Your task to perform on an android device: Open Wikipedia Image 0: 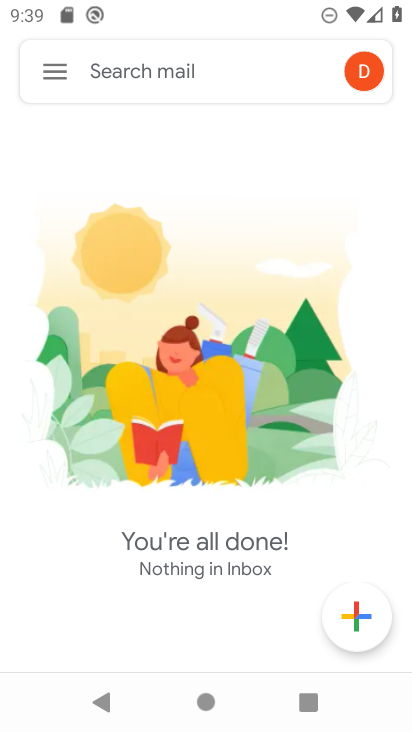
Step 0: press home button
Your task to perform on an android device: Open Wikipedia Image 1: 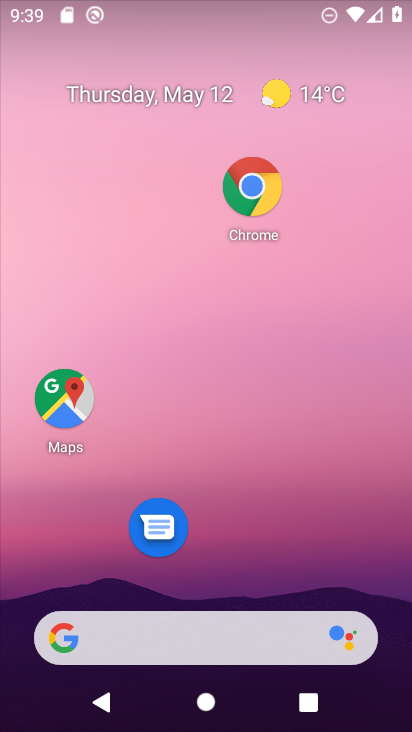
Step 1: click (257, 551)
Your task to perform on an android device: Open Wikipedia Image 2: 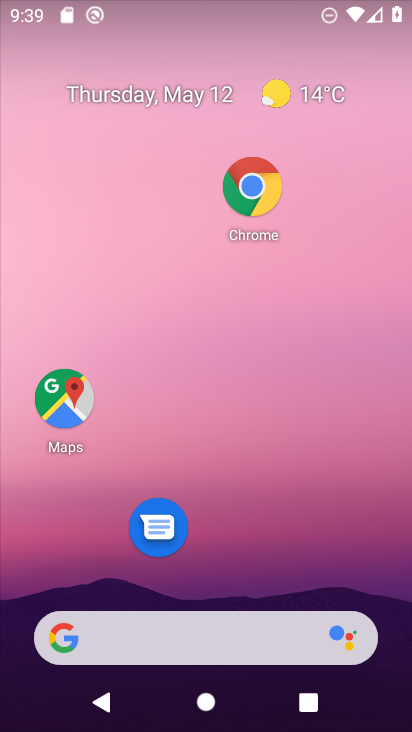
Step 2: click (234, 188)
Your task to perform on an android device: Open Wikipedia Image 3: 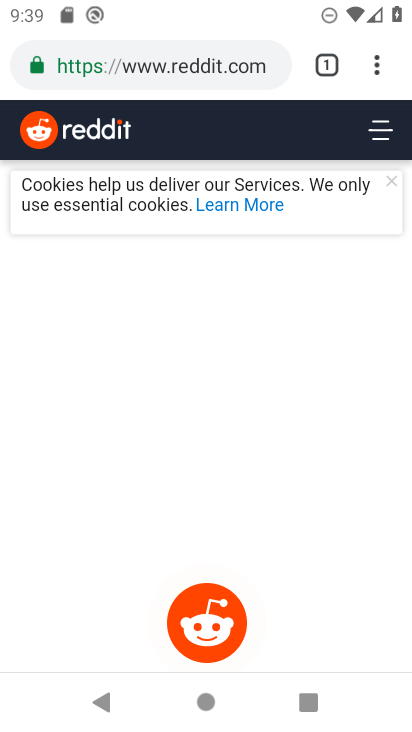
Step 3: task complete